Your task to perform on an android device: Open calendar and show me the second week of next month Image 0: 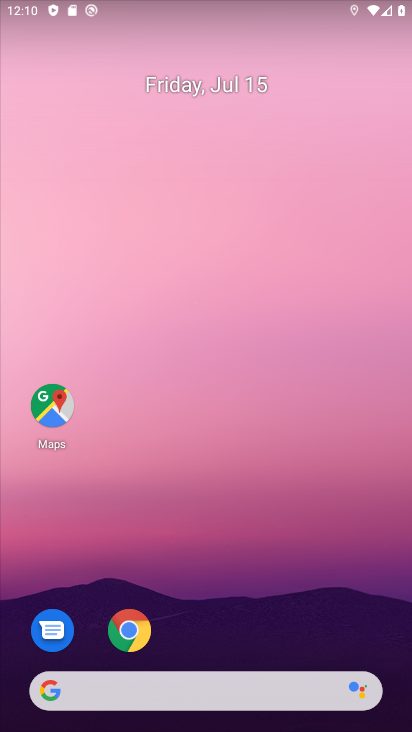
Step 0: drag from (199, 574) to (176, 185)
Your task to perform on an android device: Open calendar and show me the second week of next month Image 1: 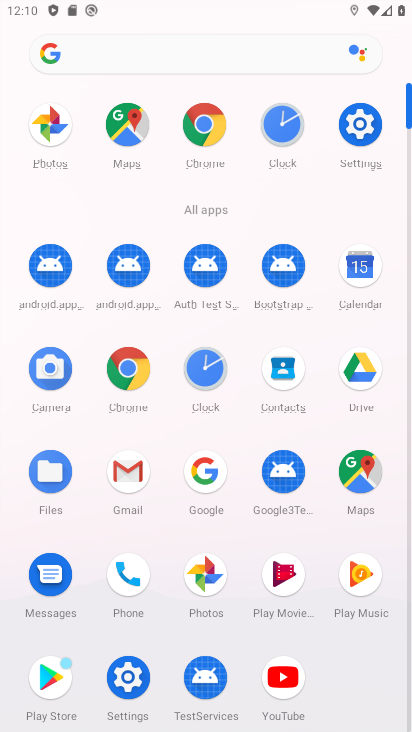
Step 1: click (350, 299)
Your task to perform on an android device: Open calendar and show me the second week of next month Image 2: 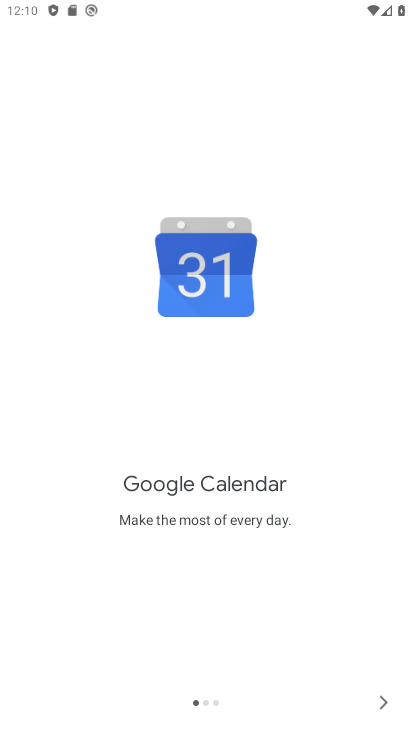
Step 2: click (382, 700)
Your task to perform on an android device: Open calendar and show me the second week of next month Image 3: 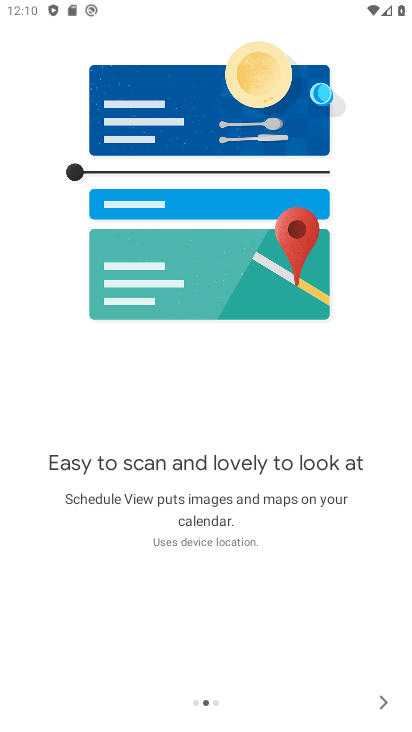
Step 3: click (382, 700)
Your task to perform on an android device: Open calendar and show me the second week of next month Image 4: 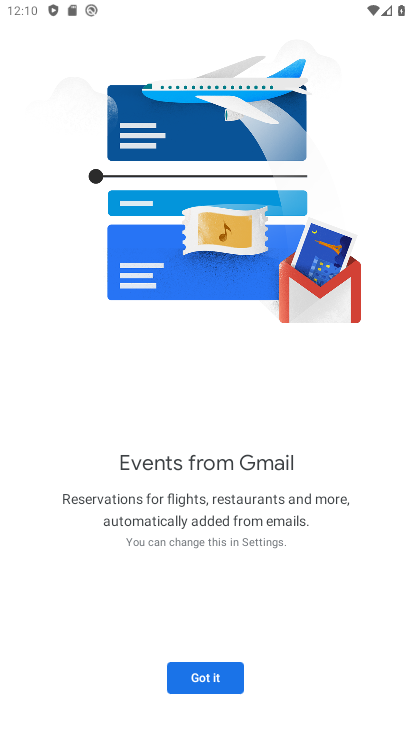
Step 4: click (209, 671)
Your task to perform on an android device: Open calendar and show me the second week of next month Image 5: 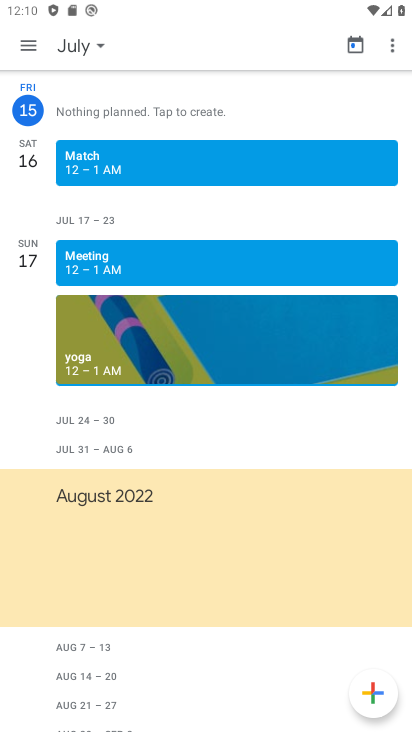
Step 5: click (36, 42)
Your task to perform on an android device: Open calendar and show me the second week of next month Image 6: 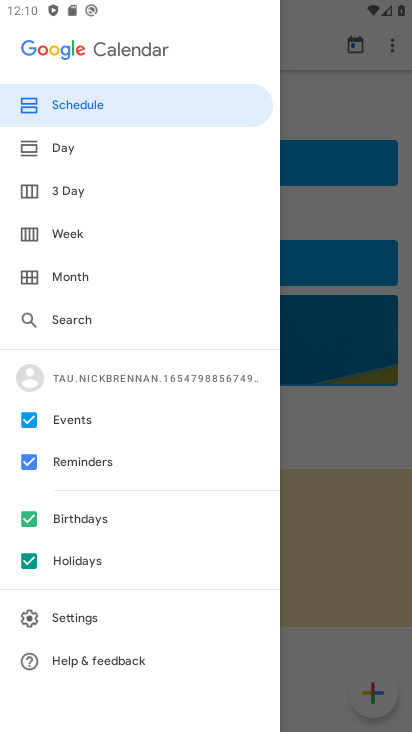
Step 6: click (83, 240)
Your task to perform on an android device: Open calendar and show me the second week of next month Image 7: 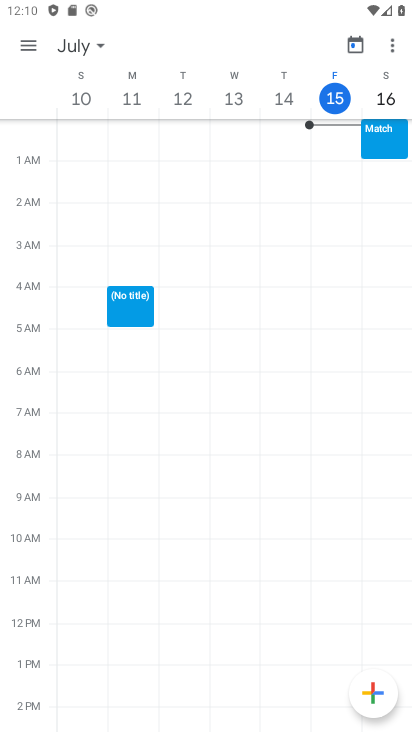
Step 7: click (82, 41)
Your task to perform on an android device: Open calendar and show me the second week of next month Image 8: 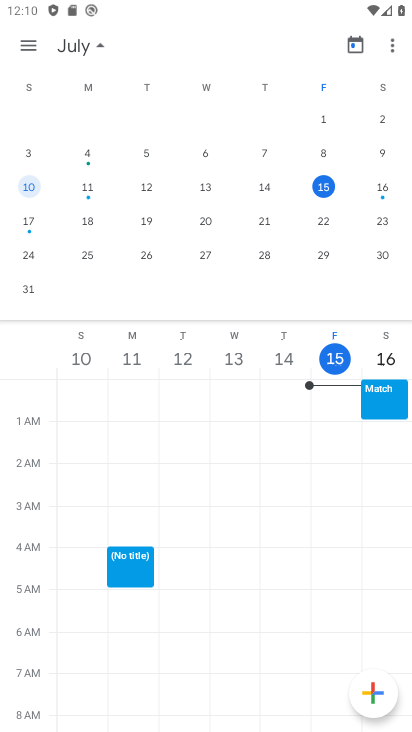
Step 8: drag from (353, 184) to (14, 242)
Your task to perform on an android device: Open calendar and show me the second week of next month Image 9: 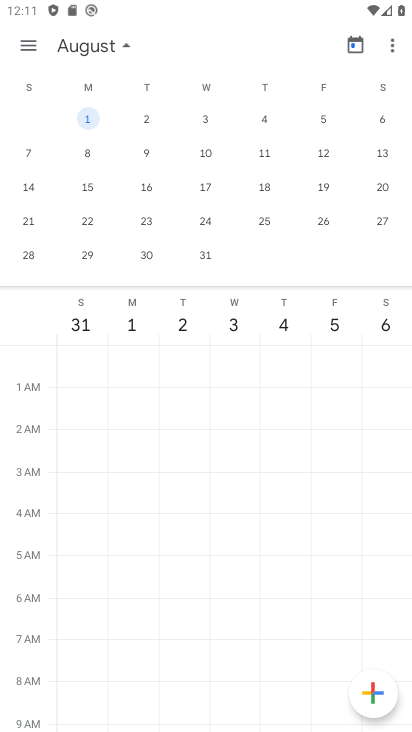
Step 9: click (19, 153)
Your task to perform on an android device: Open calendar and show me the second week of next month Image 10: 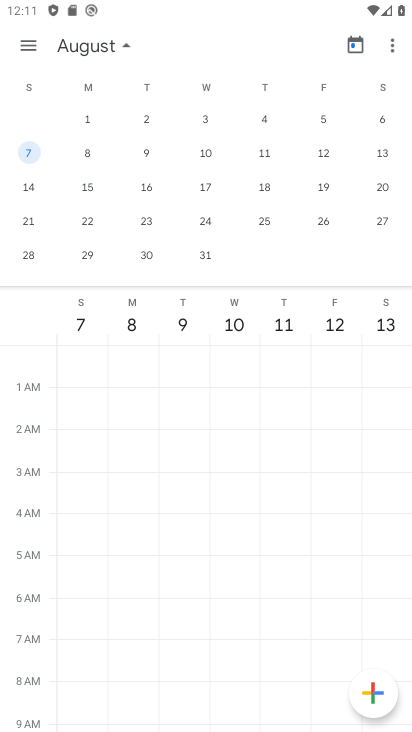
Step 10: task complete